Your task to perform on an android device: toggle translation in the chrome app Image 0: 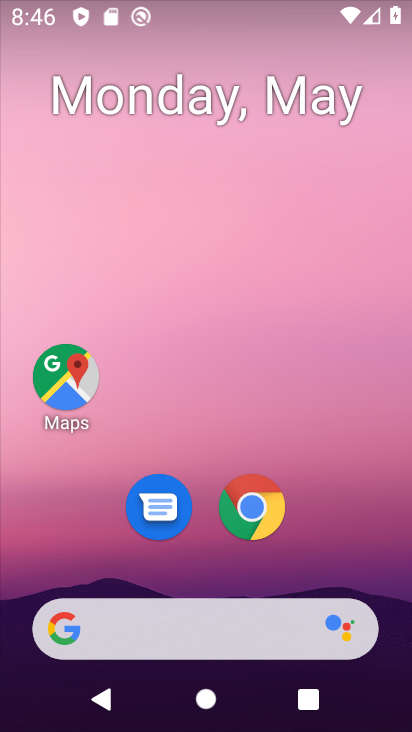
Step 0: click (258, 503)
Your task to perform on an android device: toggle translation in the chrome app Image 1: 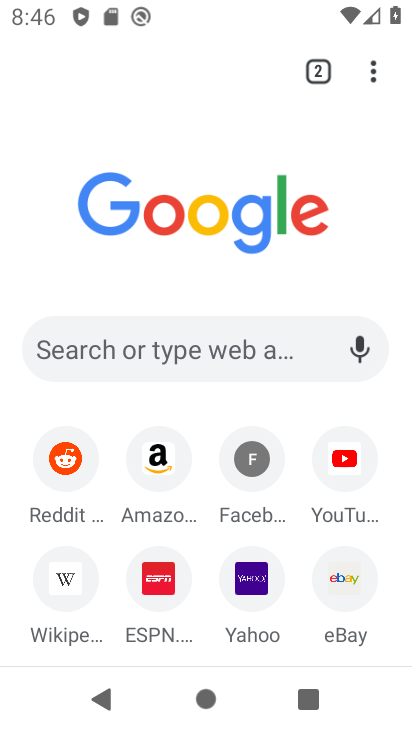
Step 1: click (384, 73)
Your task to perform on an android device: toggle translation in the chrome app Image 2: 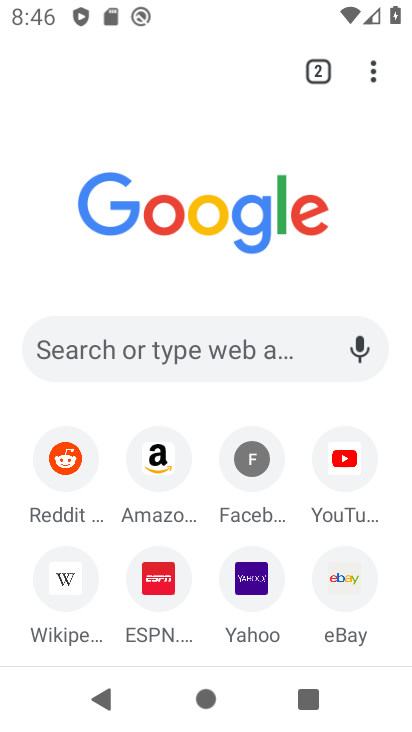
Step 2: click (376, 71)
Your task to perform on an android device: toggle translation in the chrome app Image 3: 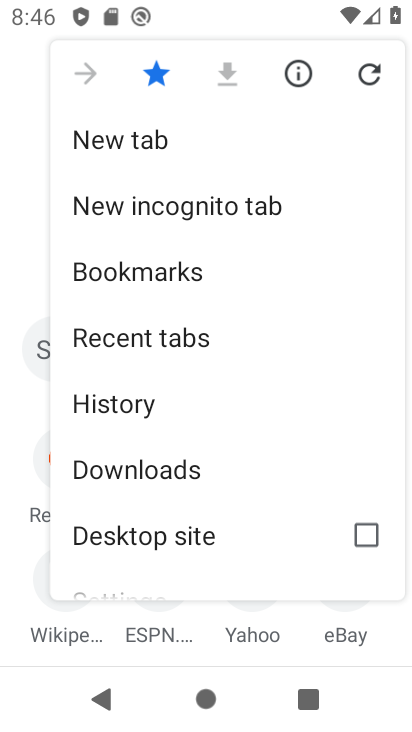
Step 3: drag from (143, 511) to (208, 200)
Your task to perform on an android device: toggle translation in the chrome app Image 4: 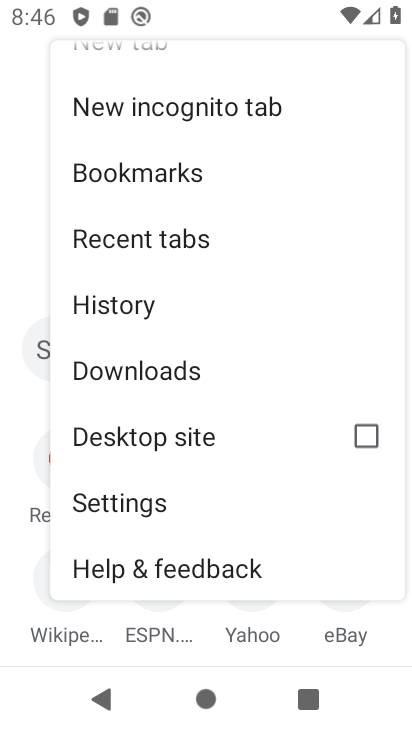
Step 4: click (147, 513)
Your task to perform on an android device: toggle translation in the chrome app Image 5: 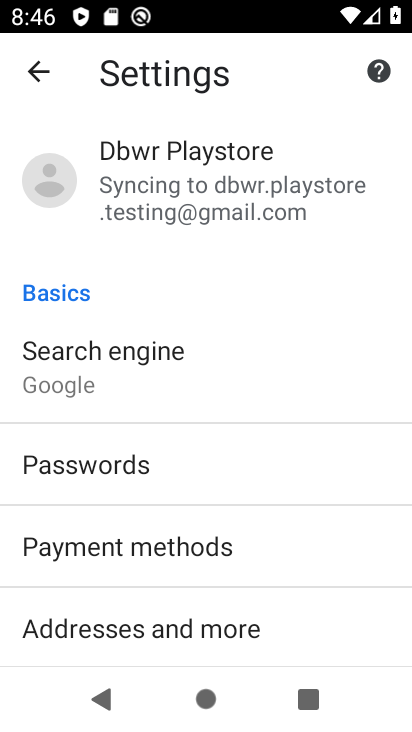
Step 5: drag from (145, 553) to (195, 204)
Your task to perform on an android device: toggle translation in the chrome app Image 6: 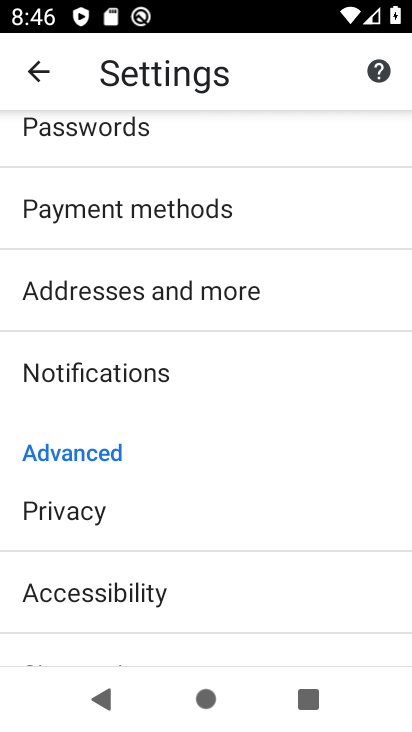
Step 6: drag from (146, 522) to (181, 182)
Your task to perform on an android device: toggle translation in the chrome app Image 7: 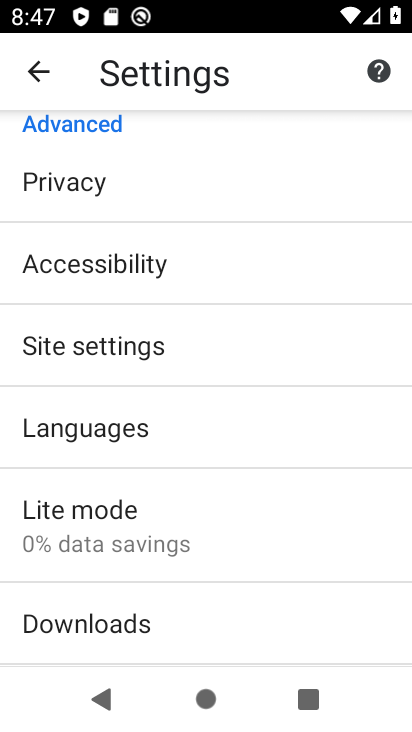
Step 7: click (144, 427)
Your task to perform on an android device: toggle translation in the chrome app Image 8: 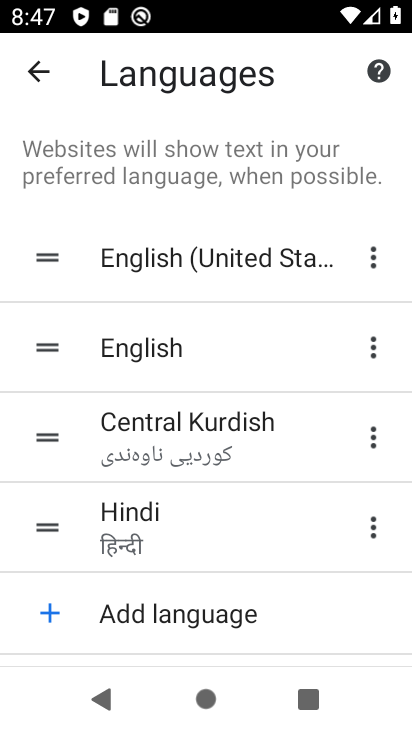
Step 8: drag from (212, 534) to (265, 131)
Your task to perform on an android device: toggle translation in the chrome app Image 9: 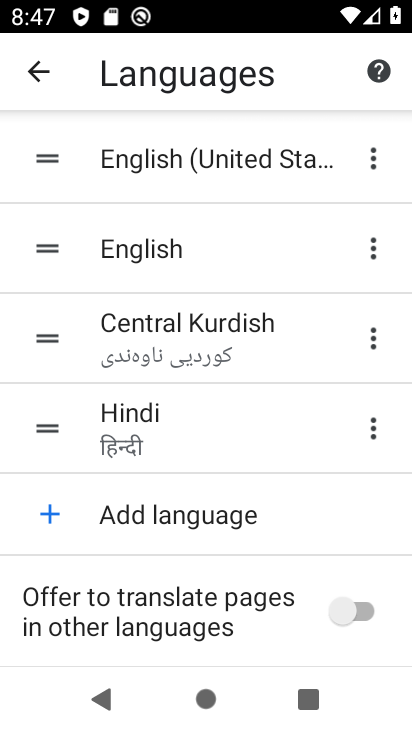
Step 9: click (374, 605)
Your task to perform on an android device: toggle translation in the chrome app Image 10: 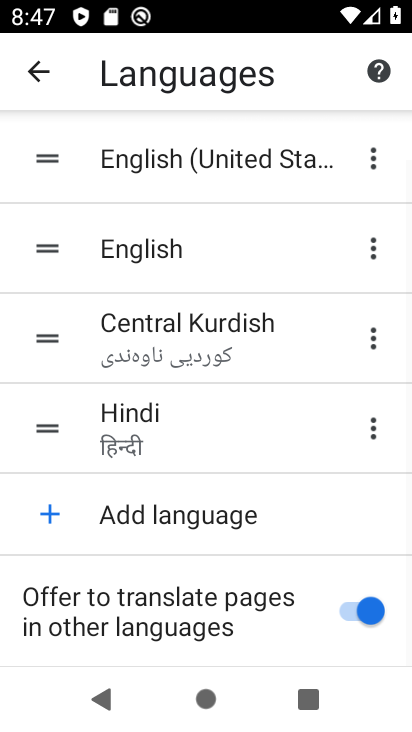
Step 10: task complete